Your task to perform on an android device: star an email in the gmail app Image 0: 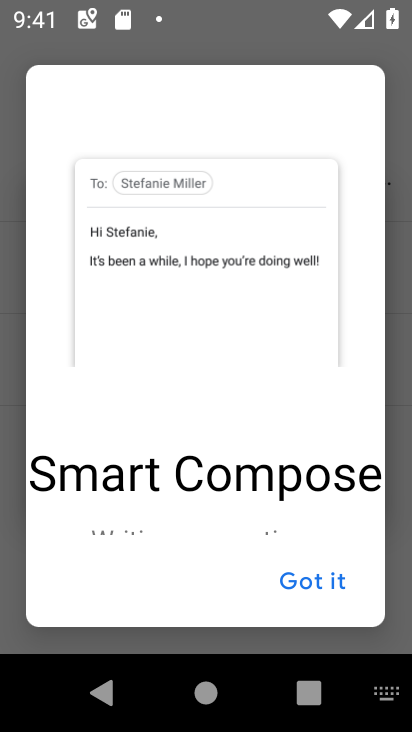
Step 0: press home button
Your task to perform on an android device: star an email in the gmail app Image 1: 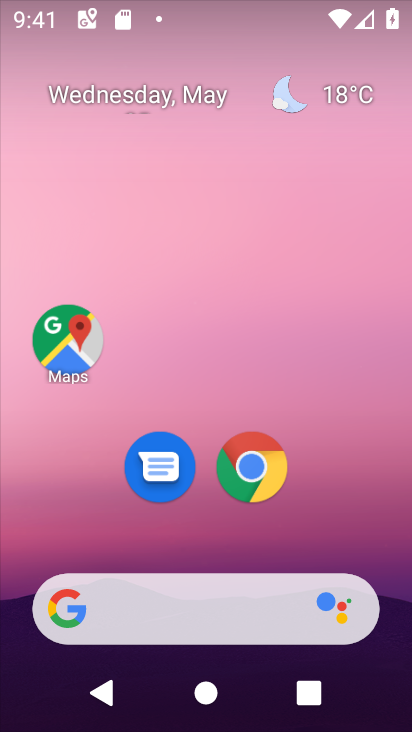
Step 1: drag from (329, 514) to (366, 145)
Your task to perform on an android device: star an email in the gmail app Image 2: 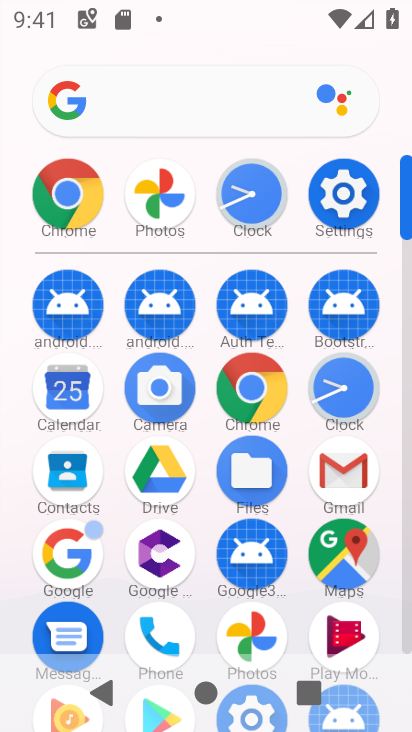
Step 2: click (330, 473)
Your task to perform on an android device: star an email in the gmail app Image 3: 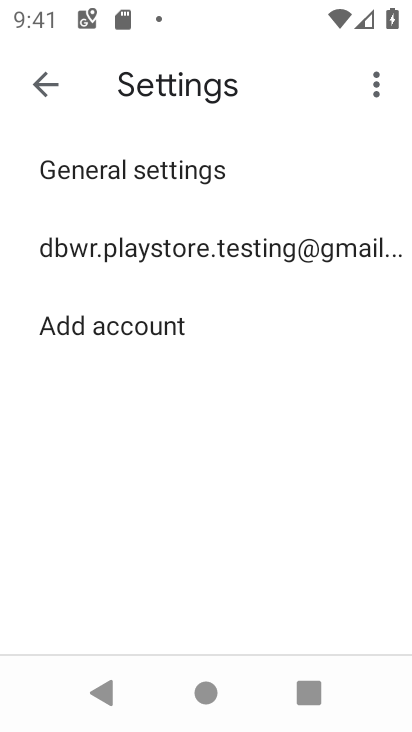
Step 3: click (51, 83)
Your task to perform on an android device: star an email in the gmail app Image 4: 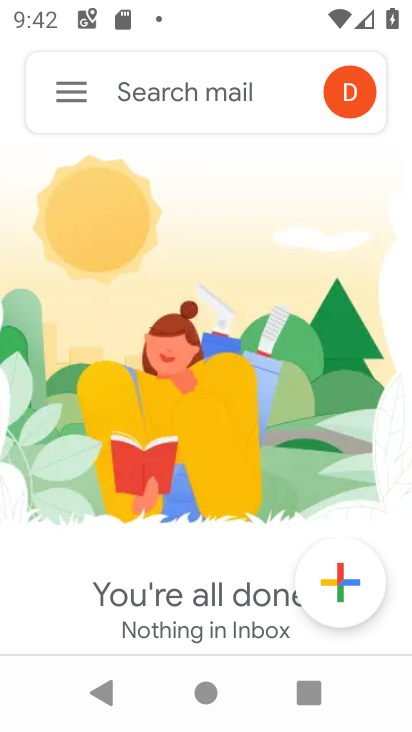
Step 4: click (74, 98)
Your task to perform on an android device: star an email in the gmail app Image 5: 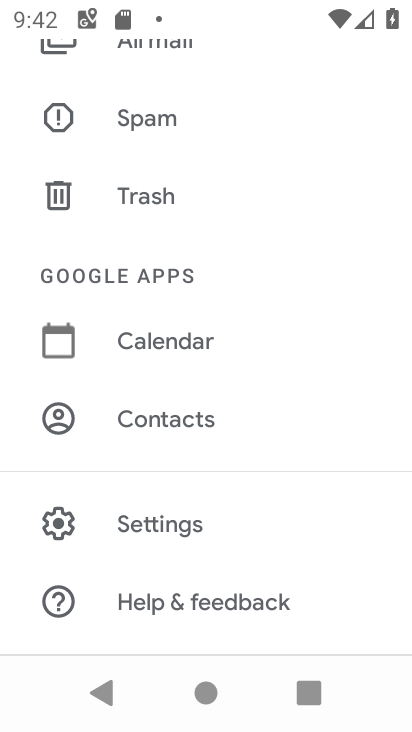
Step 5: drag from (165, 214) to (215, 563)
Your task to perform on an android device: star an email in the gmail app Image 6: 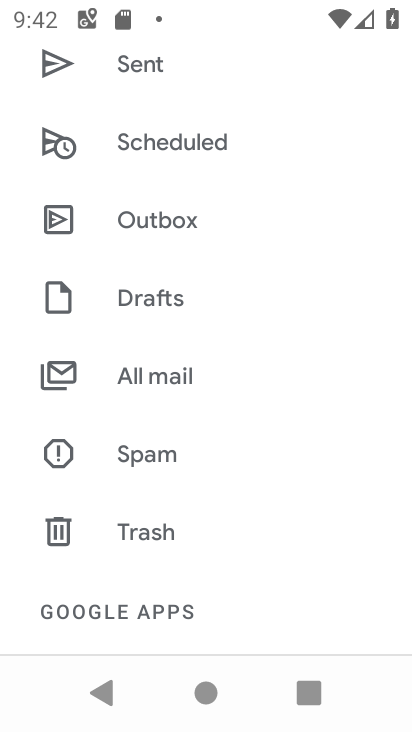
Step 6: drag from (148, 280) to (191, 350)
Your task to perform on an android device: star an email in the gmail app Image 7: 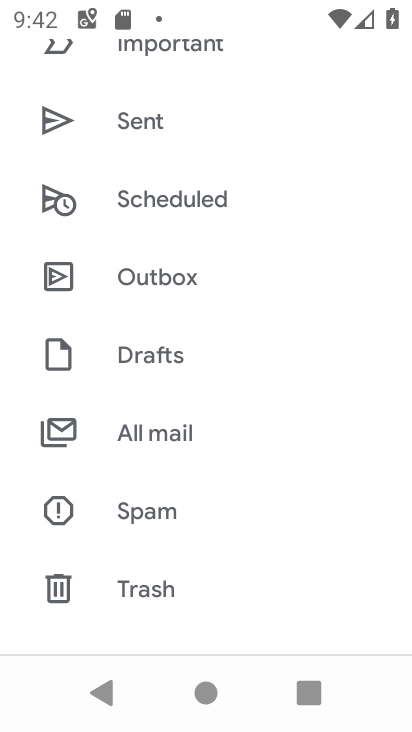
Step 7: click (140, 434)
Your task to perform on an android device: star an email in the gmail app Image 8: 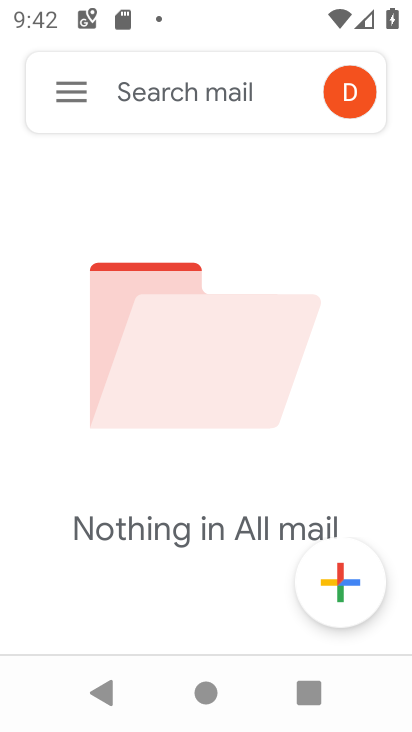
Step 8: task complete